Your task to perform on an android device: What's the weather? Image 0: 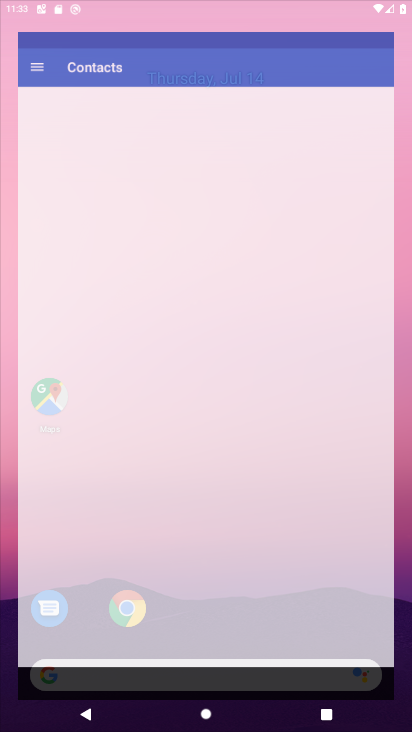
Step 0: click (266, 270)
Your task to perform on an android device: What's the weather? Image 1: 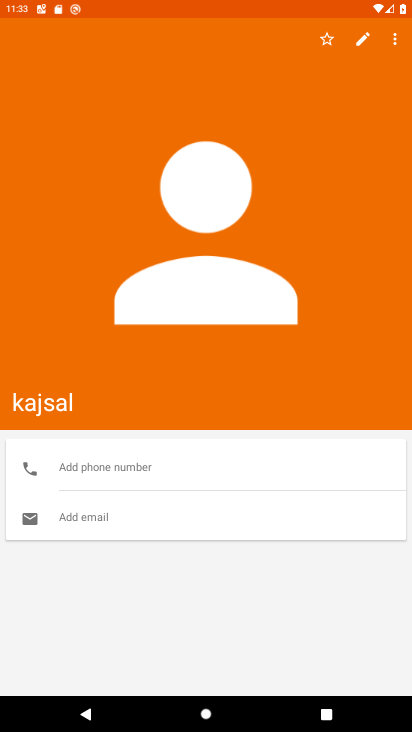
Step 1: drag from (239, 545) to (284, 258)
Your task to perform on an android device: What's the weather? Image 2: 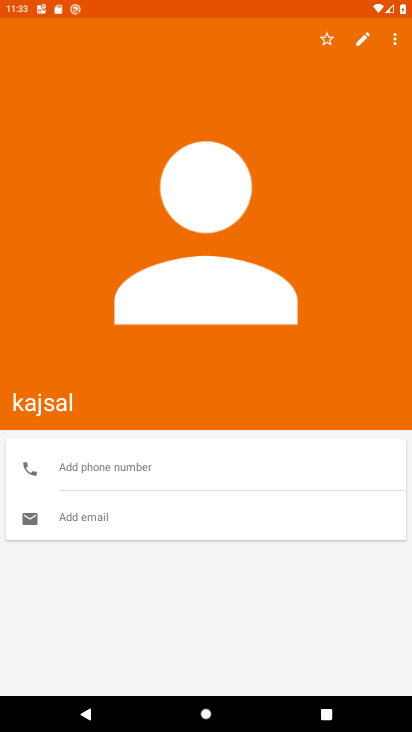
Step 2: press home button
Your task to perform on an android device: What's the weather? Image 3: 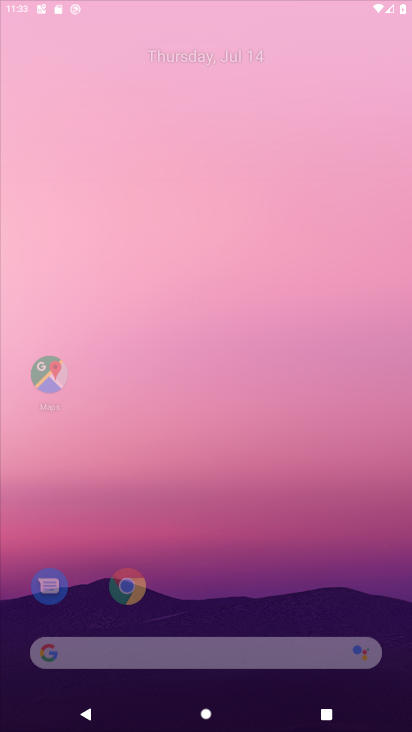
Step 3: drag from (218, 609) to (243, 270)
Your task to perform on an android device: What's the weather? Image 4: 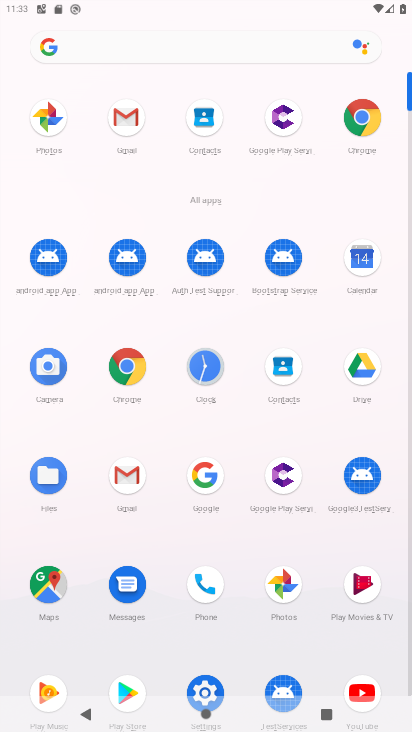
Step 4: click (138, 48)
Your task to perform on an android device: What's the weather? Image 5: 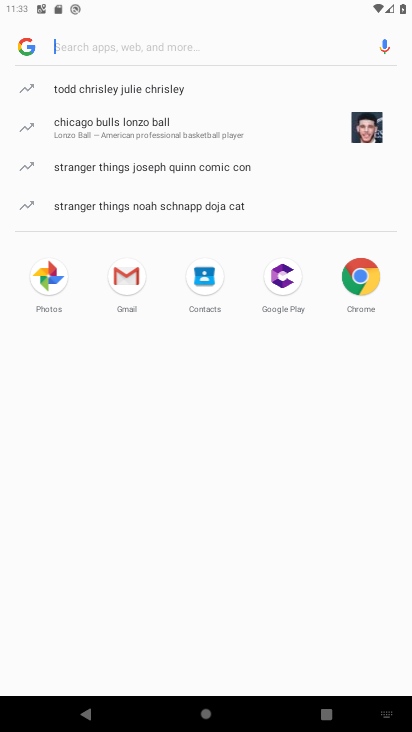
Step 5: type "weather"
Your task to perform on an android device: What's the weather? Image 6: 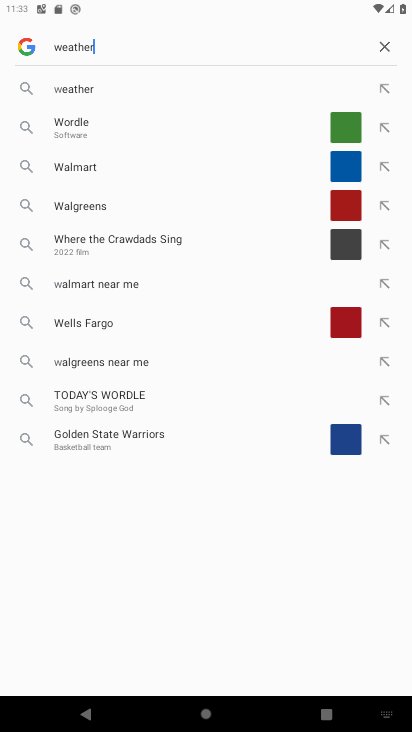
Step 6: type ""
Your task to perform on an android device: What's the weather? Image 7: 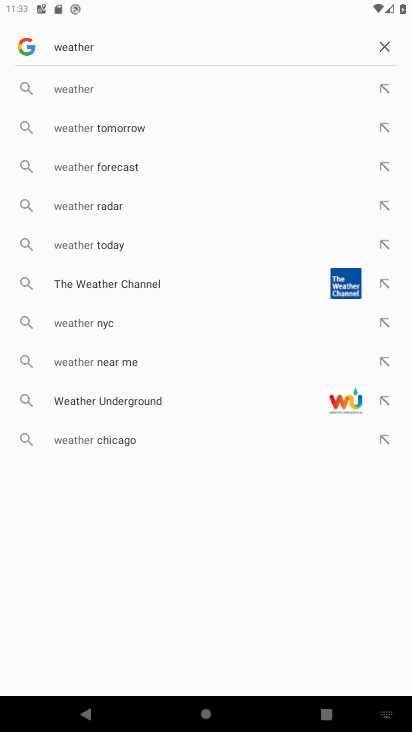
Step 7: click (72, 71)
Your task to perform on an android device: What's the weather? Image 8: 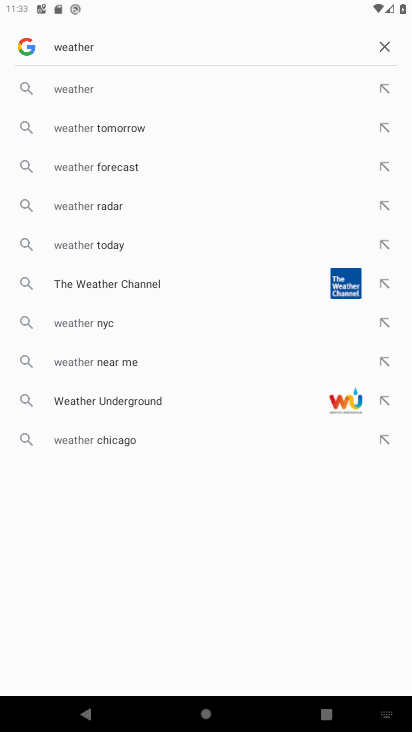
Step 8: click (89, 91)
Your task to perform on an android device: What's the weather? Image 9: 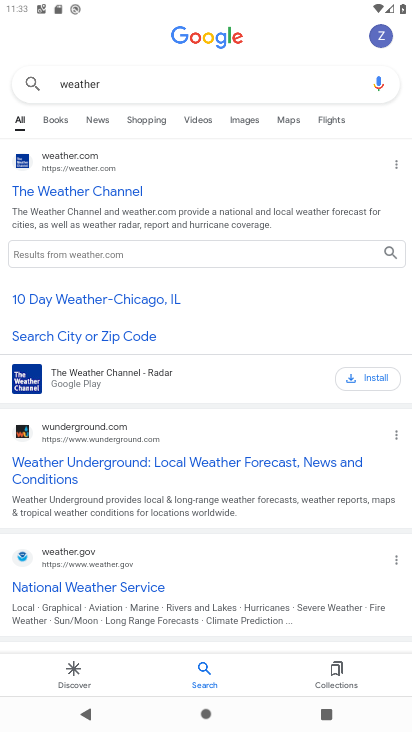
Step 9: drag from (188, 516) to (211, 149)
Your task to perform on an android device: What's the weather? Image 10: 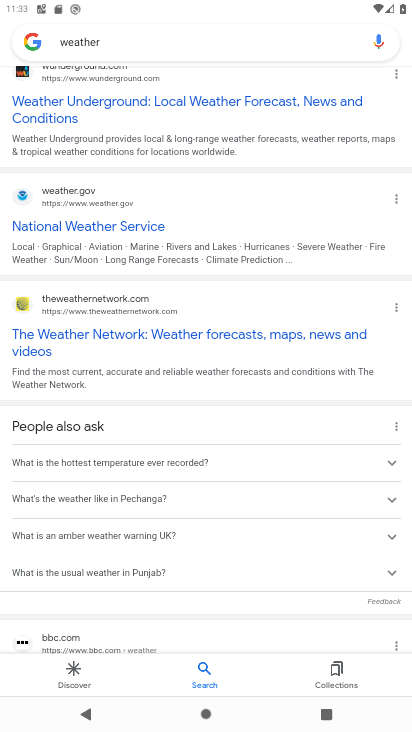
Step 10: drag from (99, 200) to (228, 589)
Your task to perform on an android device: What's the weather? Image 11: 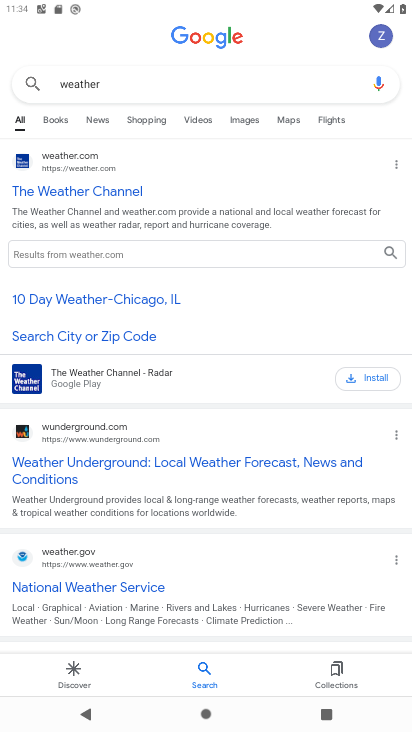
Step 11: click (44, 181)
Your task to perform on an android device: What's the weather? Image 12: 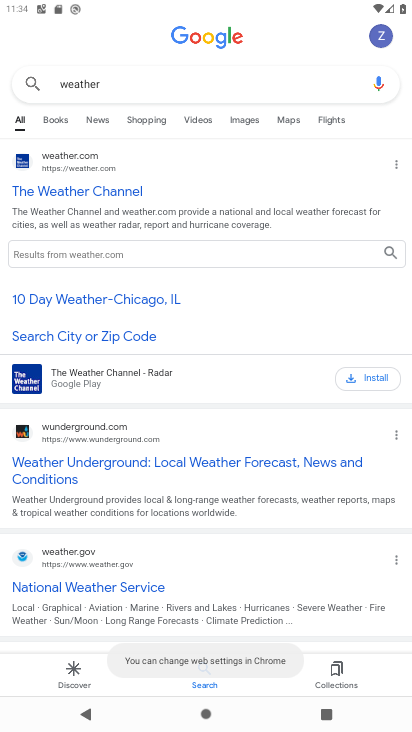
Step 12: task complete